Your task to perform on an android device: Open Google Image 0: 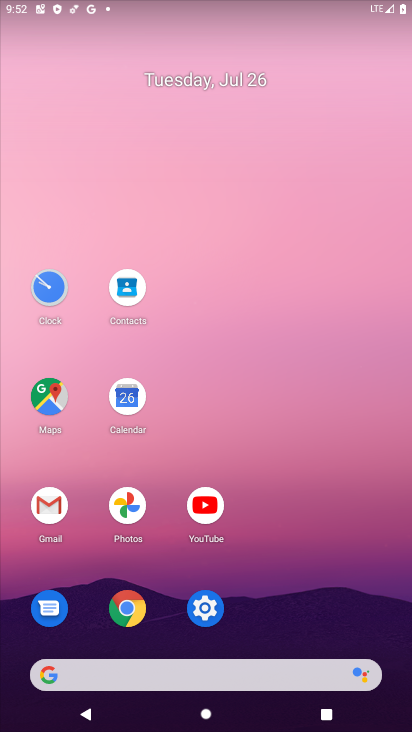
Step 0: click (51, 675)
Your task to perform on an android device: Open Google Image 1: 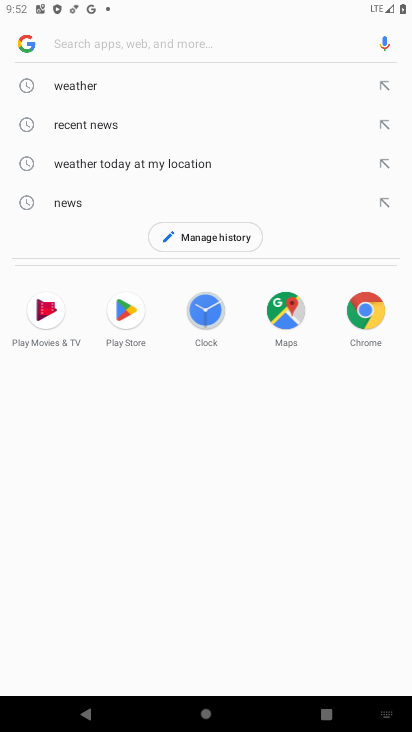
Step 1: click (23, 37)
Your task to perform on an android device: Open Google Image 2: 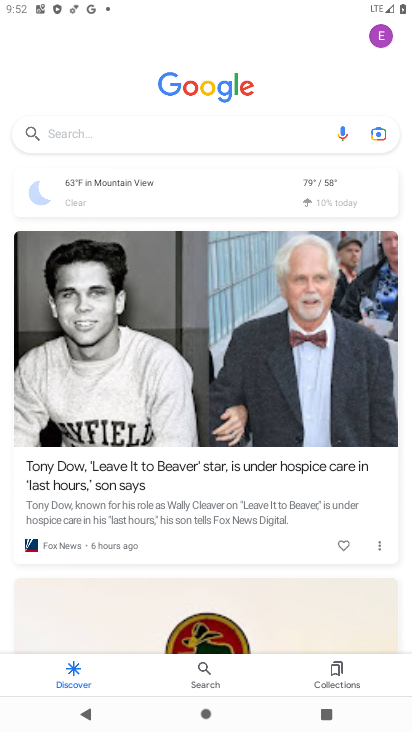
Step 2: task complete